Your task to perform on an android device: Go to ESPN.com Image 0: 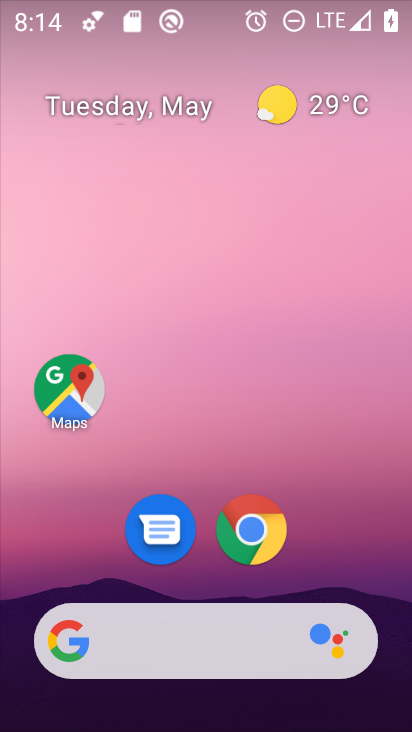
Step 0: drag from (386, 656) to (199, 75)
Your task to perform on an android device: Go to ESPN.com Image 1: 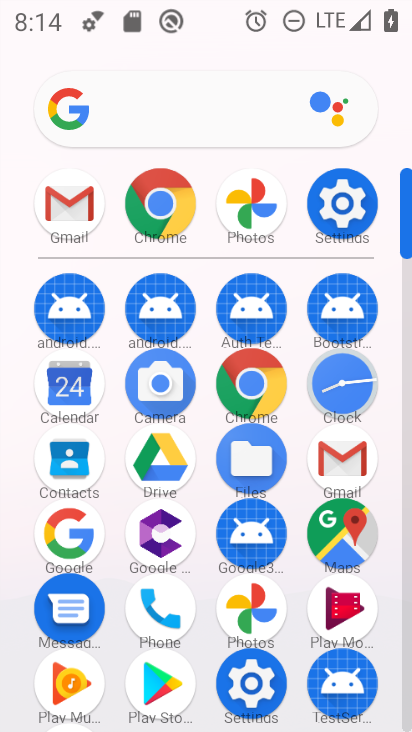
Step 1: click (67, 549)
Your task to perform on an android device: Go to ESPN.com Image 2: 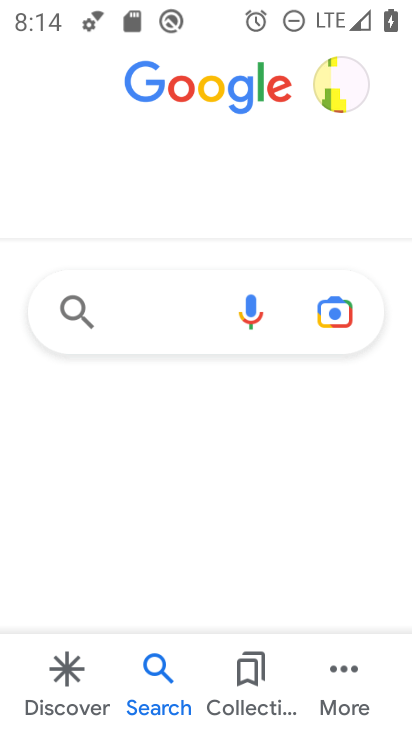
Step 2: click (162, 308)
Your task to perform on an android device: Go to ESPN.com Image 3: 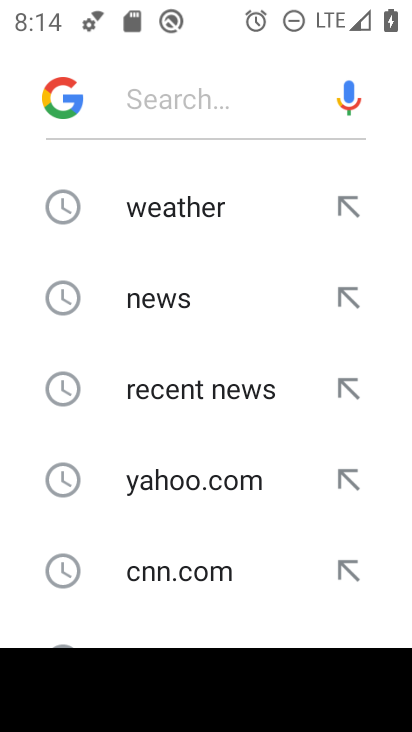
Step 3: drag from (163, 575) to (206, 159)
Your task to perform on an android device: Go to ESPN.com Image 4: 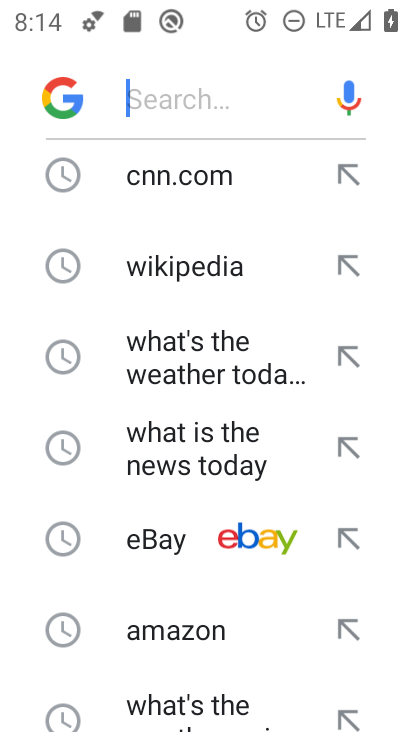
Step 4: drag from (164, 638) to (188, 219)
Your task to perform on an android device: Go to ESPN.com Image 5: 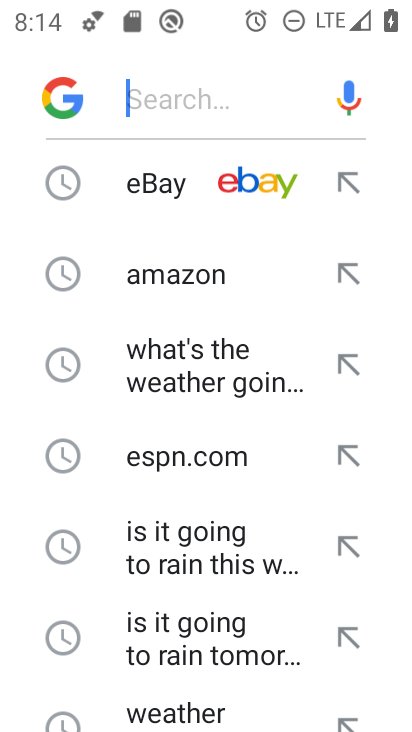
Step 5: click (197, 463)
Your task to perform on an android device: Go to ESPN.com Image 6: 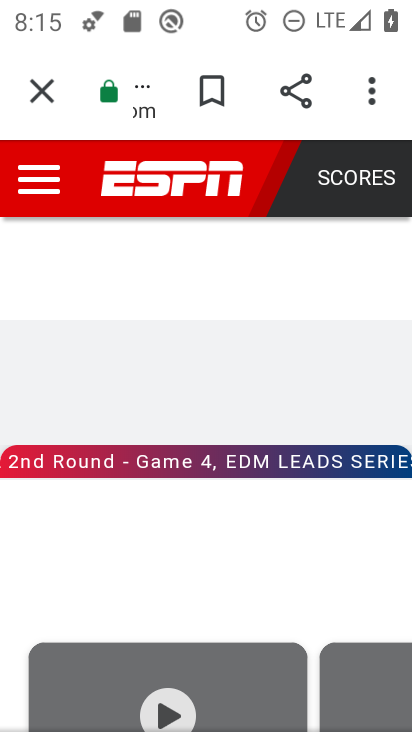
Step 6: task complete